Your task to perform on an android device: Search for vegetarian restaurants on Maps Image 0: 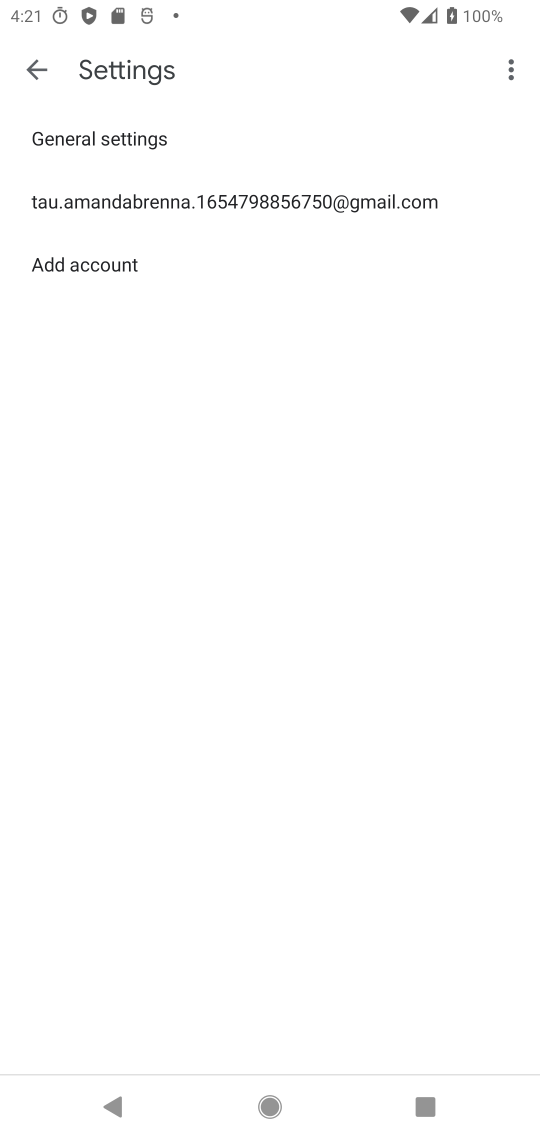
Step 0: press home button
Your task to perform on an android device: Search for vegetarian restaurants on Maps Image 1: 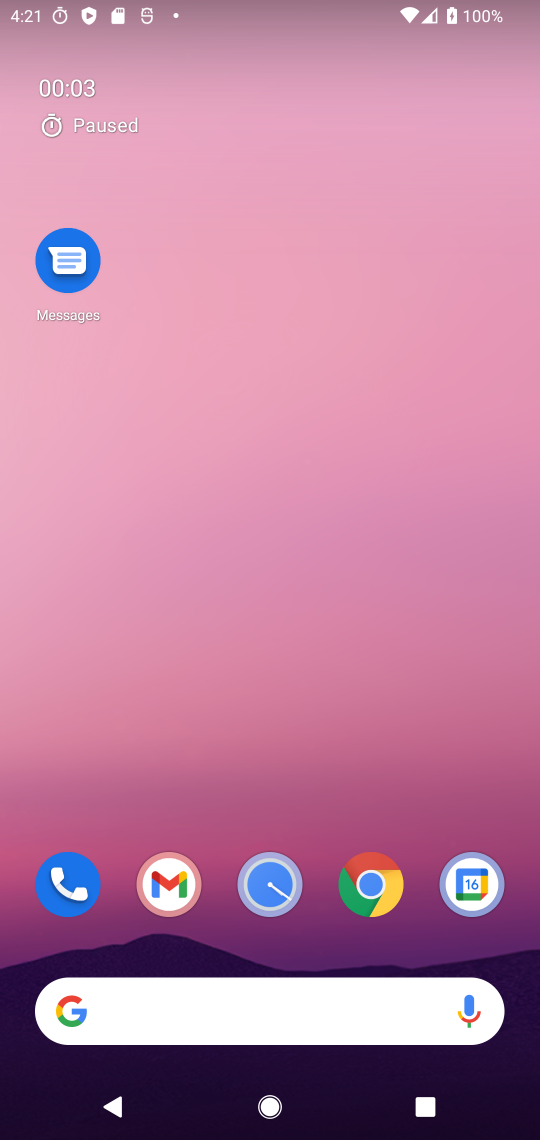
Step 1: drag from (54, 1088) to (345, 539)
Your task to perform on an android device: Search for vegetarian restaurants on Maps Image 2: 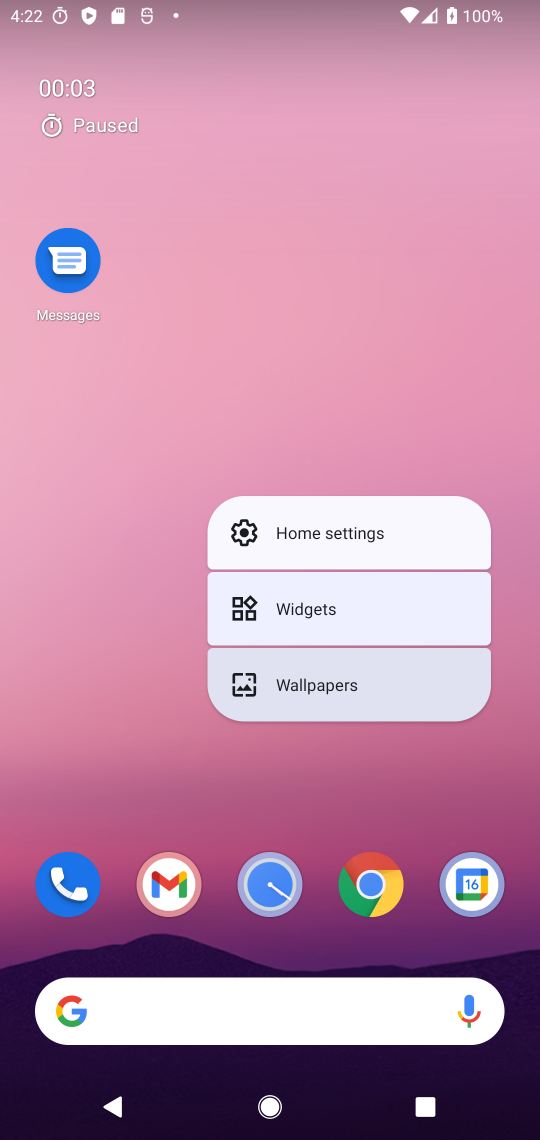
Step 2: drag from (56, 1032) to (328, 378)
Your task to perform on an android device: Search for vegetarian restaurants on Maps Image 3: 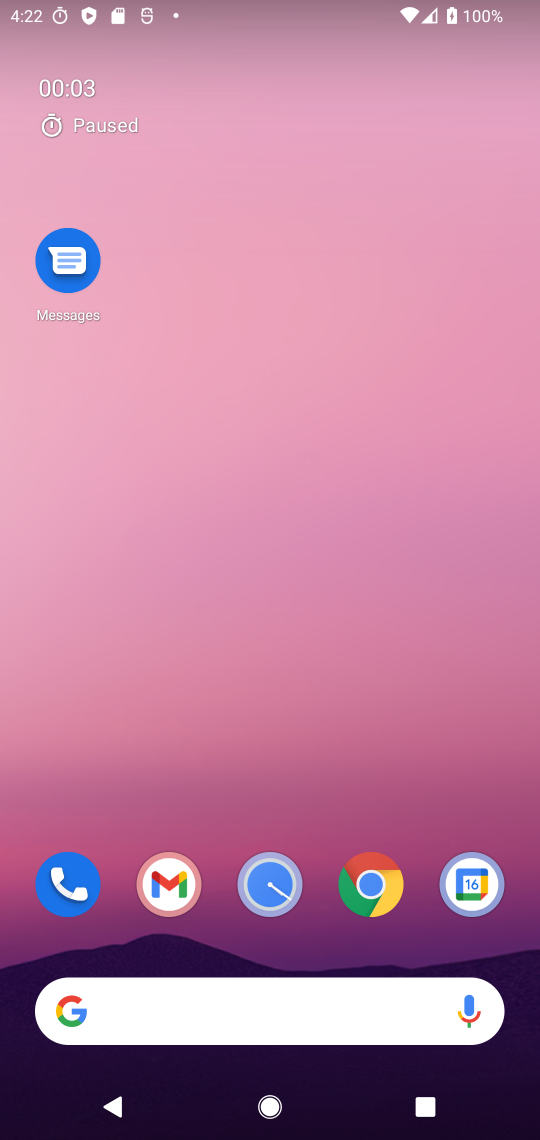
Step 3: drag from (22, 1059) to (380, 316)
Your task to perform on an android device: Search for vegetarian restaurants on Maps Image 4: 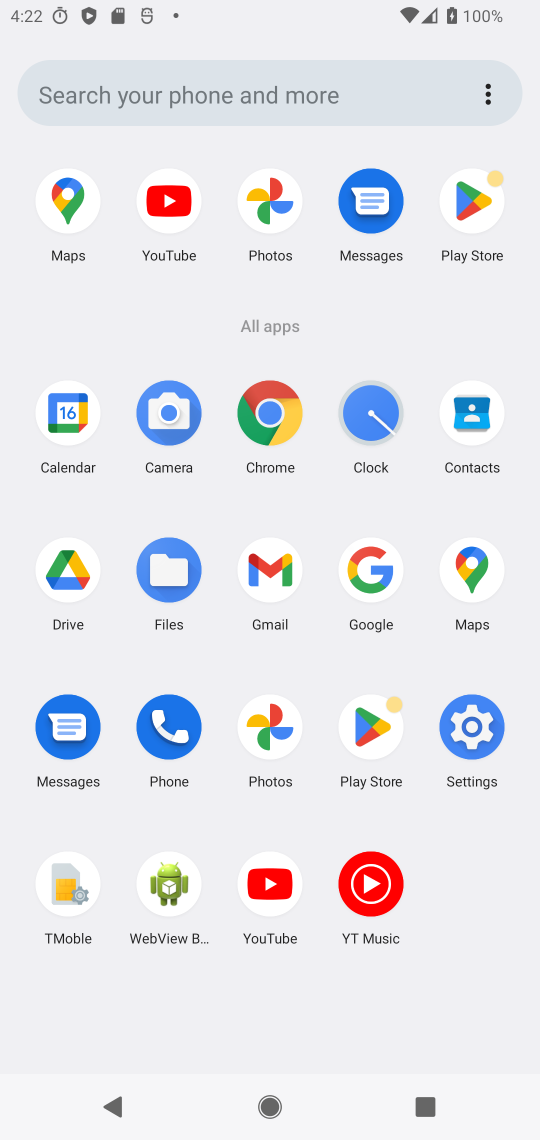
Step 4: click (51, 229)
Your task to perform on an android device: Search for vegetarian restaurants on Maps Image 5: 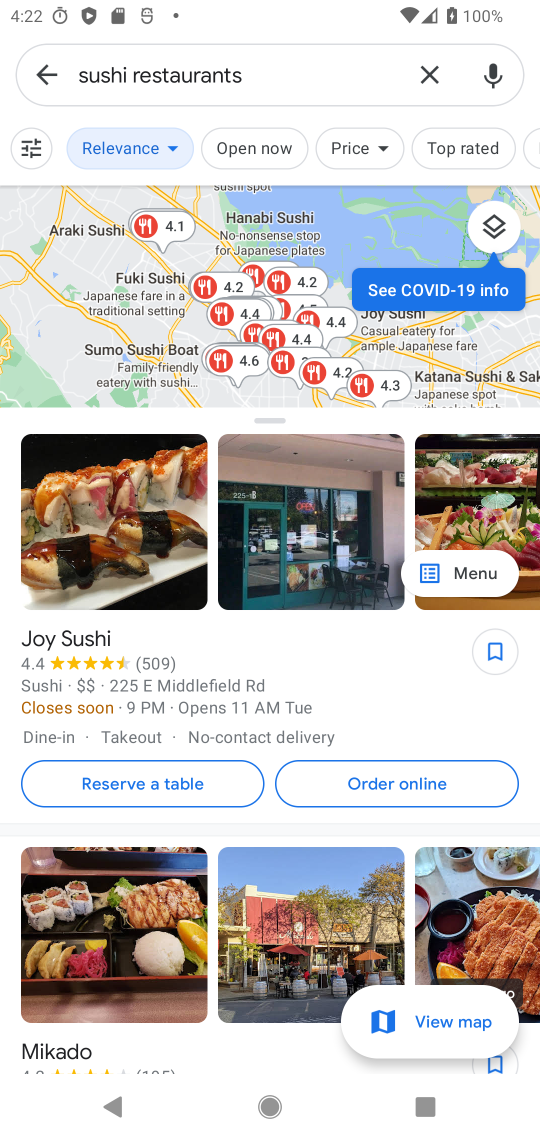
Step 5: click (38, 70)
Your task to perform on an android device: Search for vegetarian restaurants on Maps Image 6: 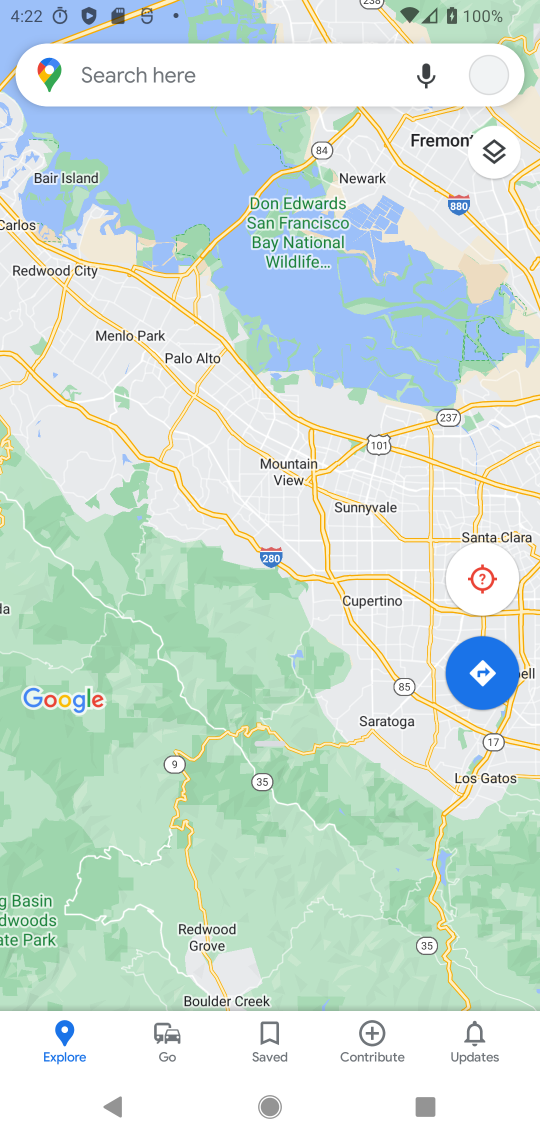
Step 6: click (112, 68)
Your task to perform on an android device: Search for vegetarian restaurants on Maps Image 7: 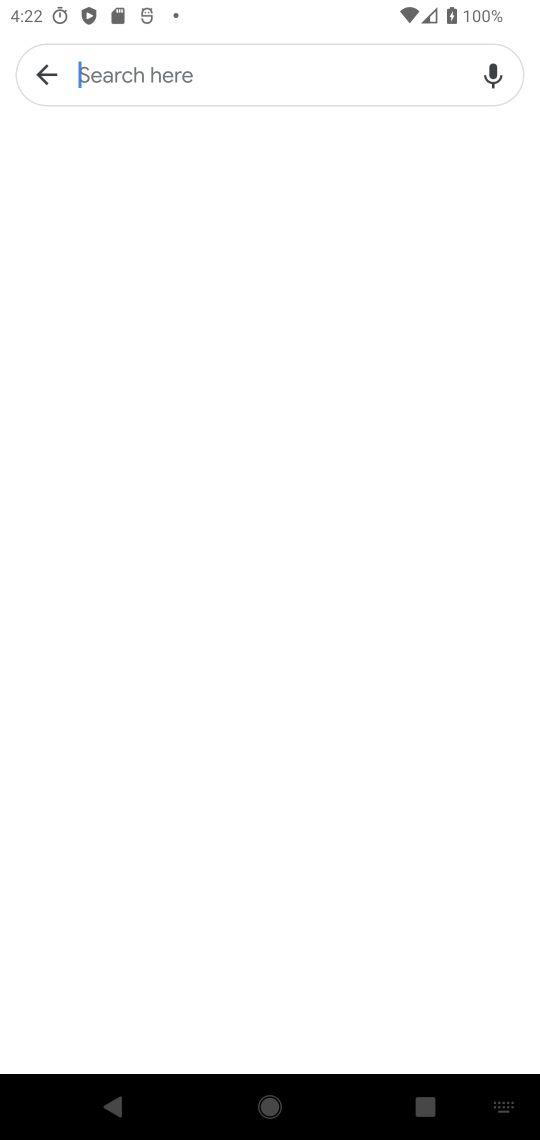
Step 7: type "vegetarian restaurants"
Your task to perform on an android device: Search for vegetarian restaurants on Maps Image 8: 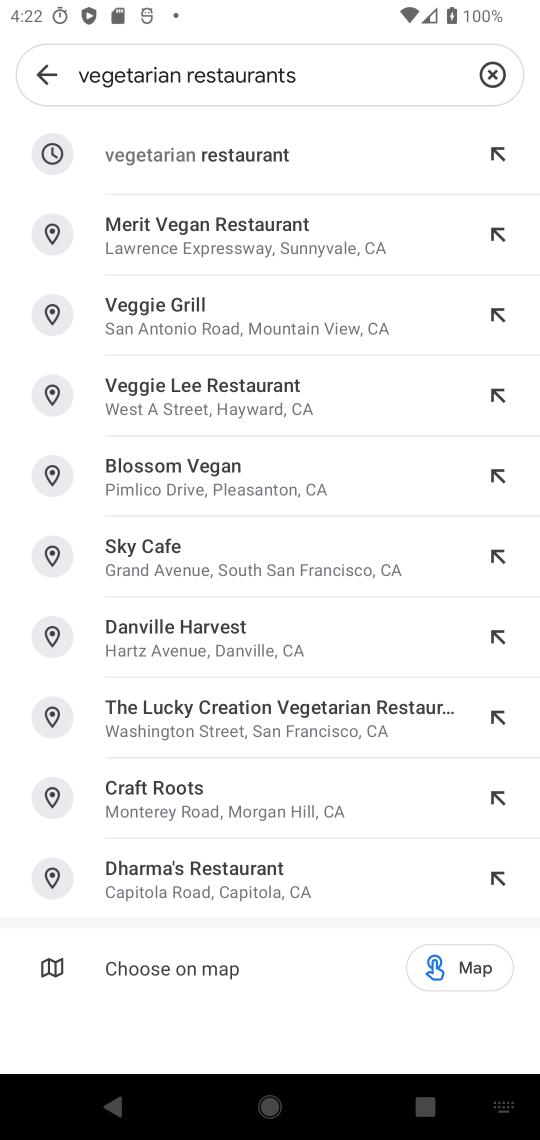
Step 8: click (256, 170)
Your task to perform on an android device: Search for vegetarian restaurants on Maps Image 9: 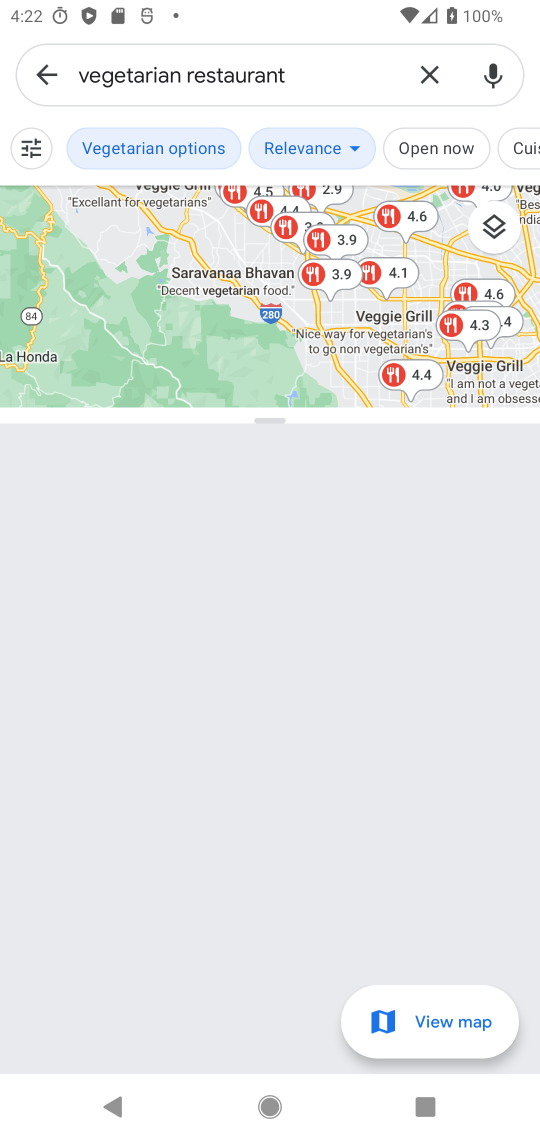
Step 9: task complete